Your task to perform on an android device: What's on my calendar tomorrow? Image 0: 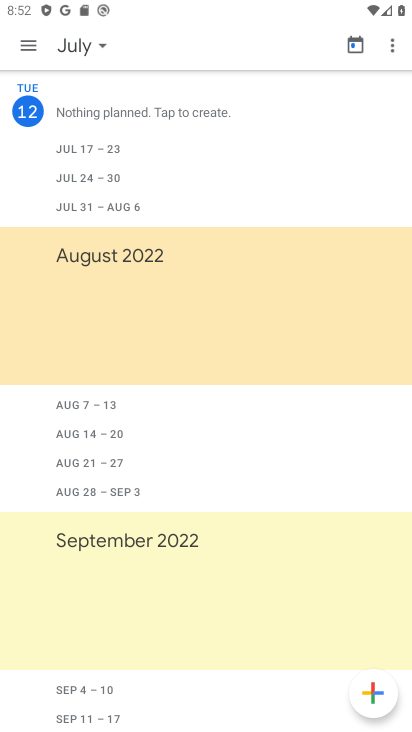
Step 0: press home button
Your task to perform on an android device: What's on my calendar tomorrow? Image 1: 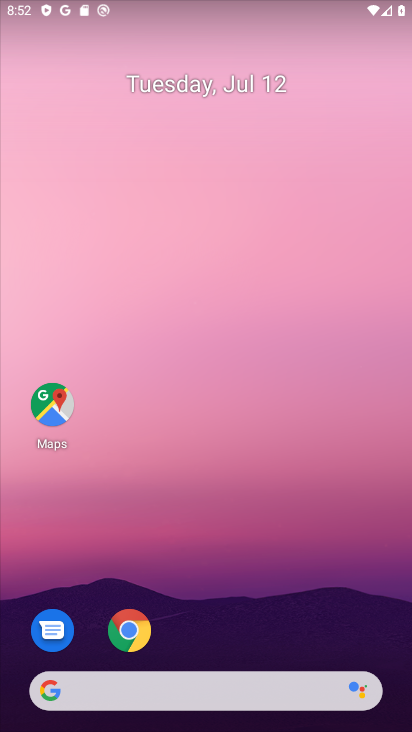
Step 1: drag from (229, 652) to (257, 131)
Your task to perform on an android device: What's on my calendar tomorrow? Image 2: 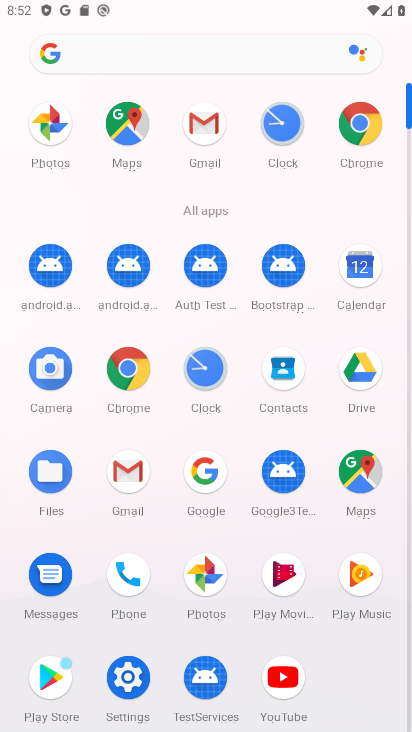
Step 2: click (356, 271)
Your task to perform on an android device: What's on my calendar tomorrow? Image 3: 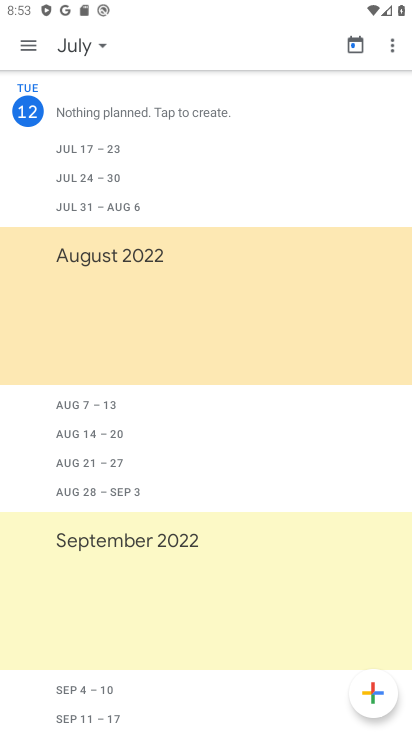
Step 3: click (96, 47)
Your task to perform on an android device: What's on my calendar tomorrow? Image 4: 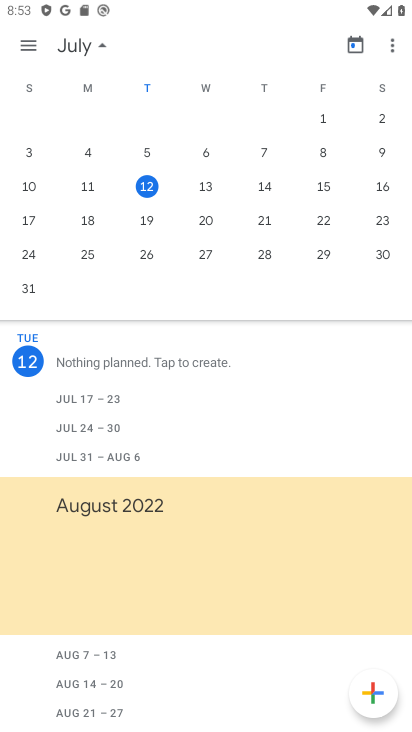
Step 4: click (211, 189)
Your task to perform on an android device: What's on my calendar tomorrow? Image 5: 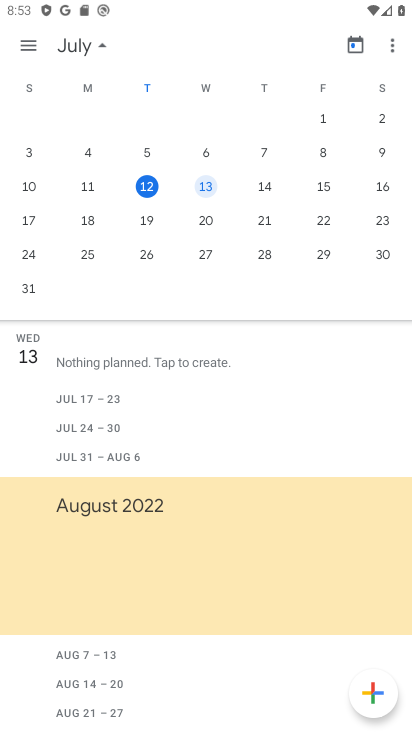
Step 5: task complete